Your task to perform on an android device: Search for Mexican restaurants on Maps Image 0: 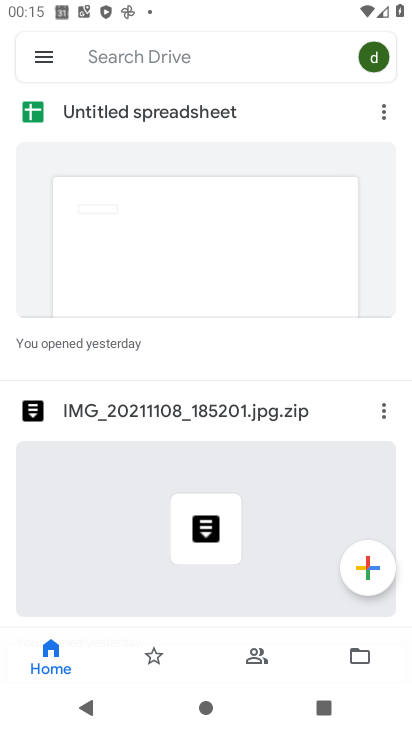
Step 0: press home button
Your task to perform on an android device: Search for Mexican restaurants on Maps Image 1: 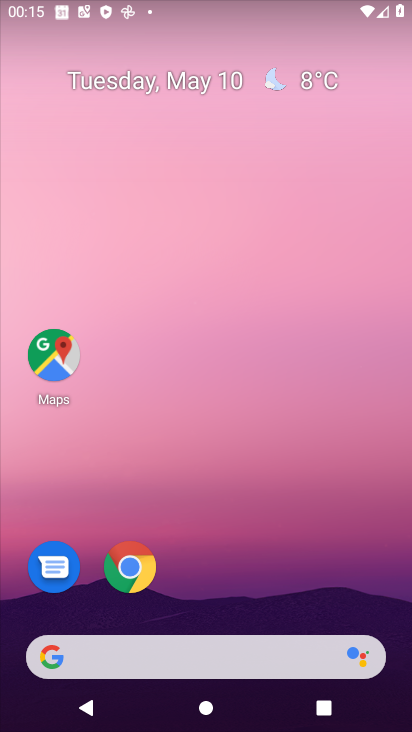
Step 1: click (53, 358)
Your task to perform on an android device: Search for Mexican restaurants on Maps Image 2: 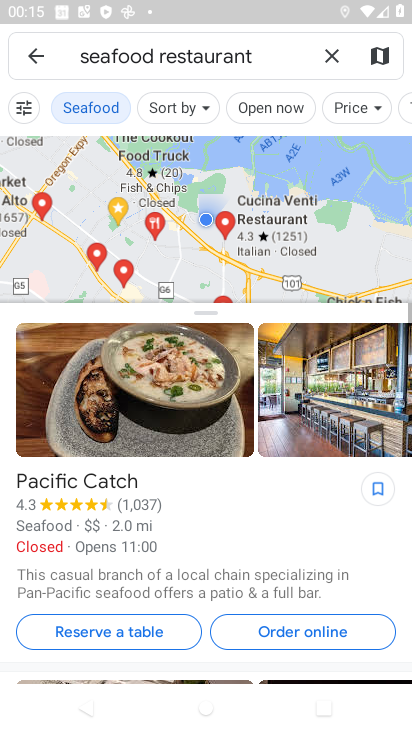
Step 2: click (332, 57)
Your task to perform on an android device: Search for Mexican restaurants on Maps Image 3: 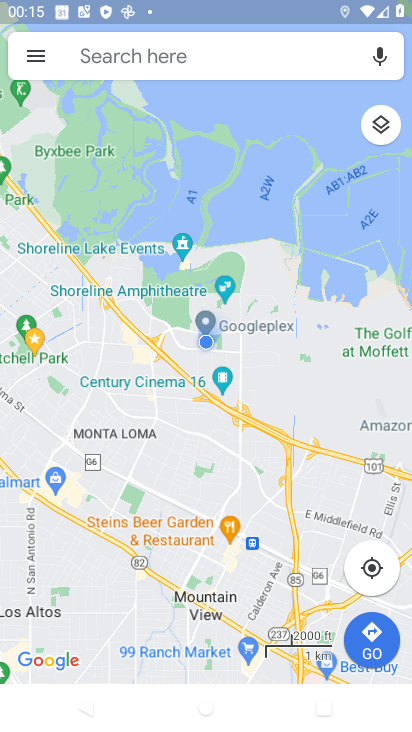
Step 3: click (241, 63)
Your task to perform on an android device: Search for Mexican restaurants on Maps Image 4: 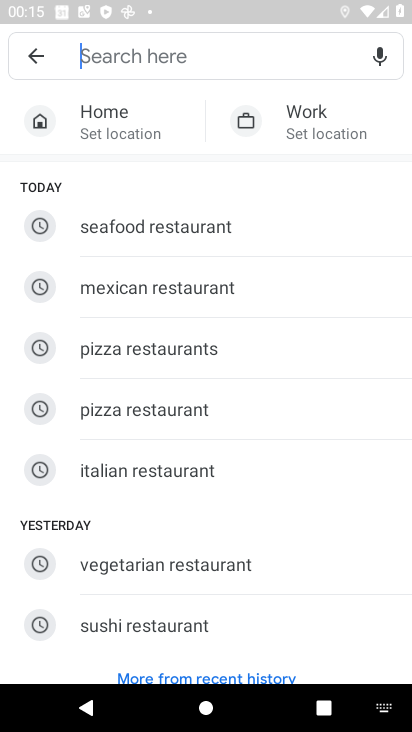
Step 4: type "Mexican restaurants"
Your task to perform on an android device: Search for Mexican restaurants on Maps Image 5: 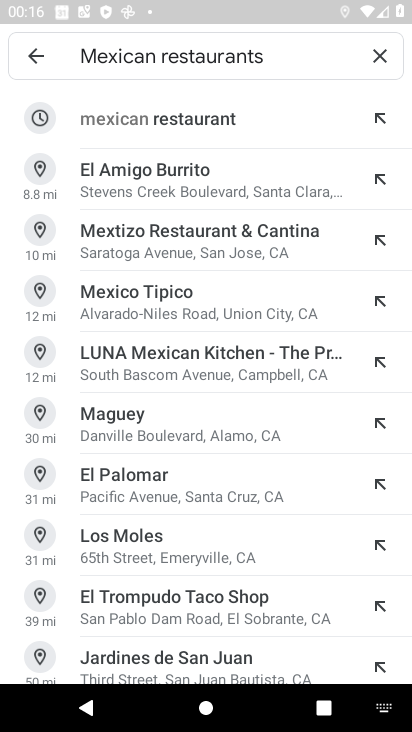
Step 5: click (192, 122)
Your task to perform on an android device: Search for Mexican restaurants on Maps Image 6: 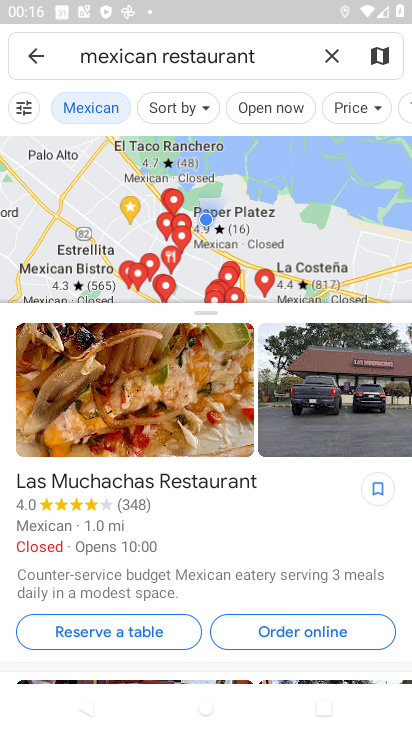
Step 6: task complete